Your task to perform on an android device: Open Yahoo.com Image 0: 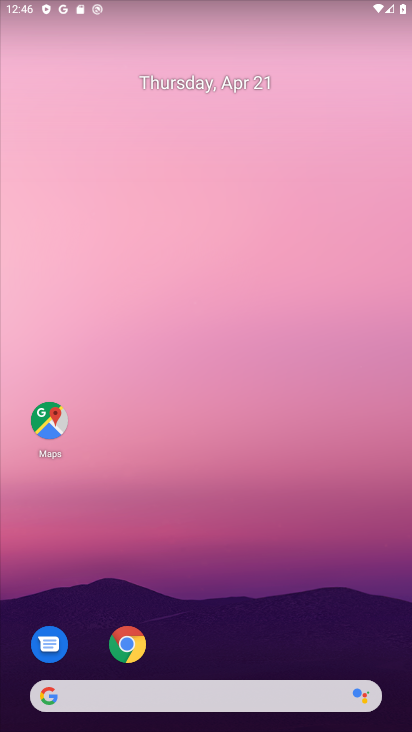
Step 0: click (127, 635)
Your task to perform on an android device: Open Yahoo.com Image 1: 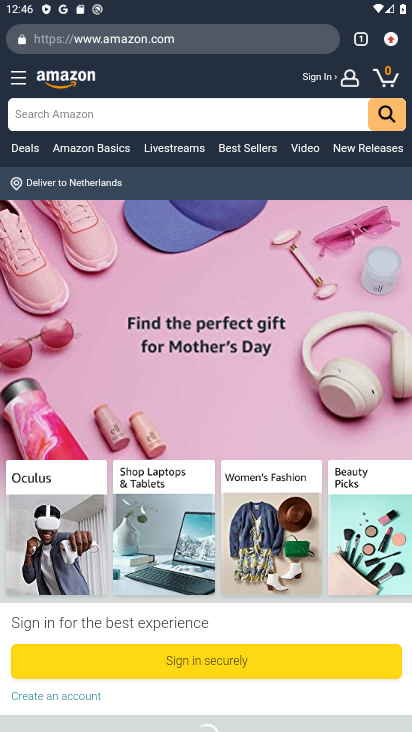
Step 1: click (389, 41)
Your task to perform on an android device: Open Yahoo.com Image 2: 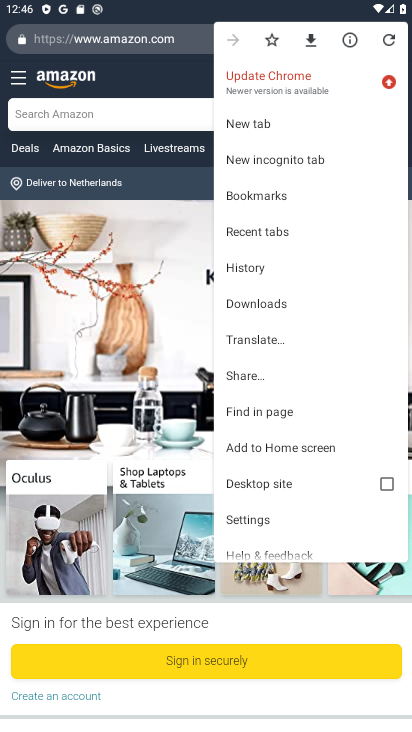
Step 2: click (280, 119)
Your task to perform on an android device: Open Yahoo.com Image 3: 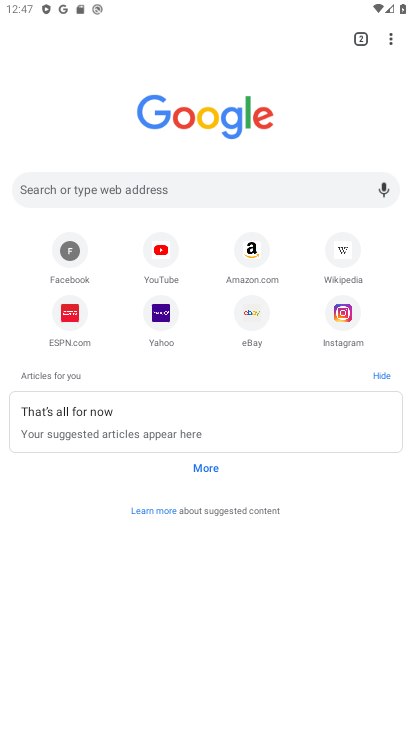
Step 3: click (169, 323)
Your task to perform on an android device: Open Yahoo.com Image 4: 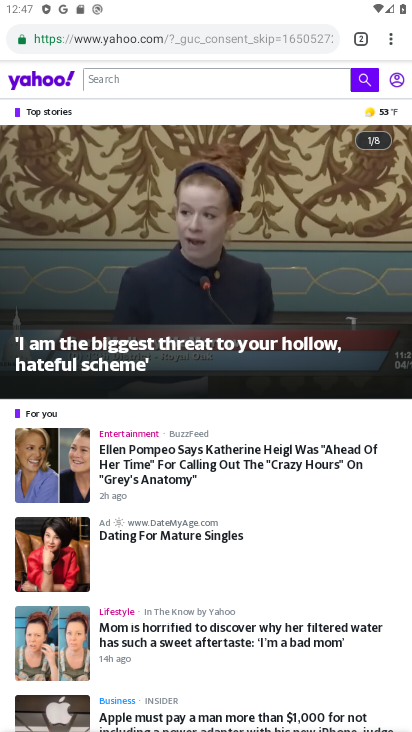
Step 4: task complete